Your task to perform on an android device: Go to settings Image 0: 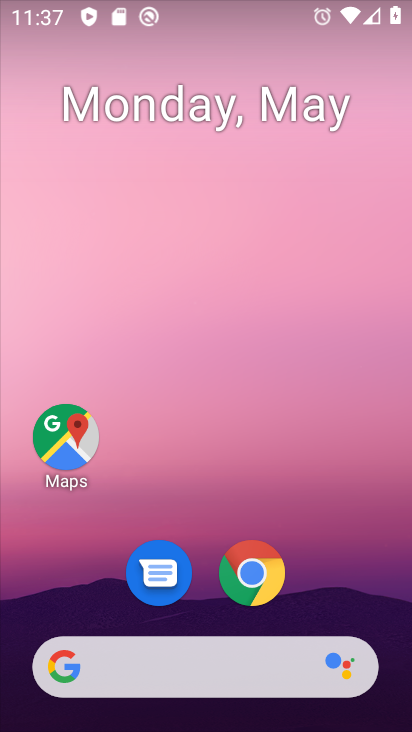
Step 0: drag from (180, 727) to (184, 93)
Your task to perform on an android device: Go to settings Image 1: 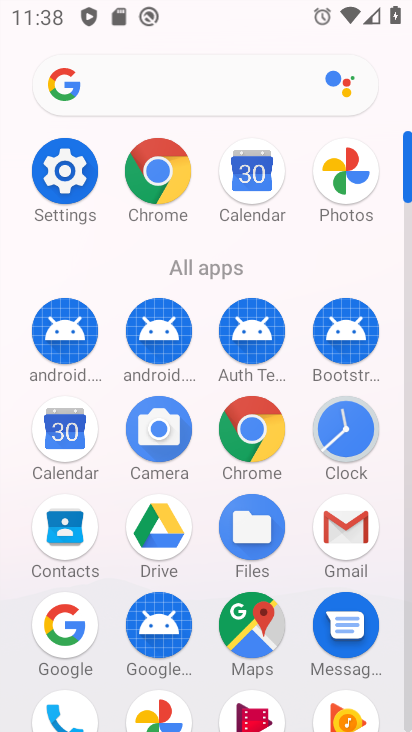
Step 1: click (60, 185)
Your task to perform on an android device: Go to settings Image 2: 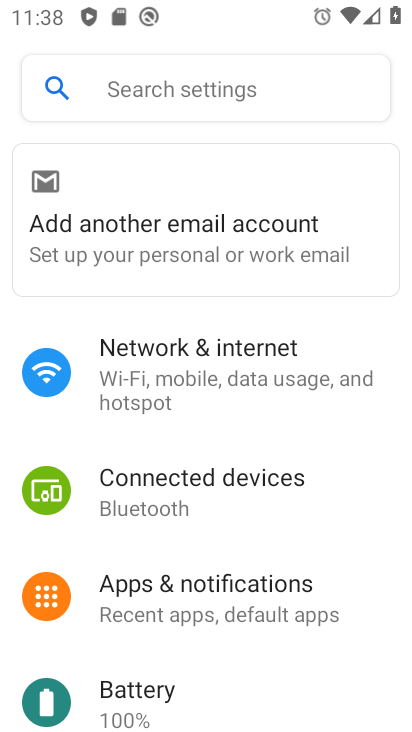
Step 2: task complete